Your task to perform on an android device: Open Reddit.com Image 0: 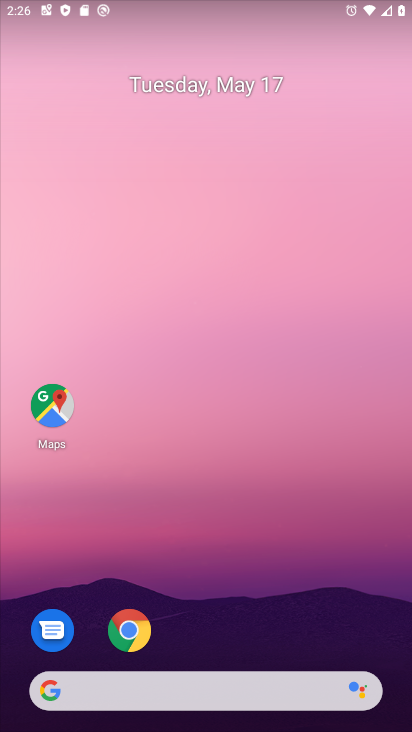
Step 0: drag from (237, 704) to (55, 17)
Your task to perform on an android device: Open Reddit.com Image 1: 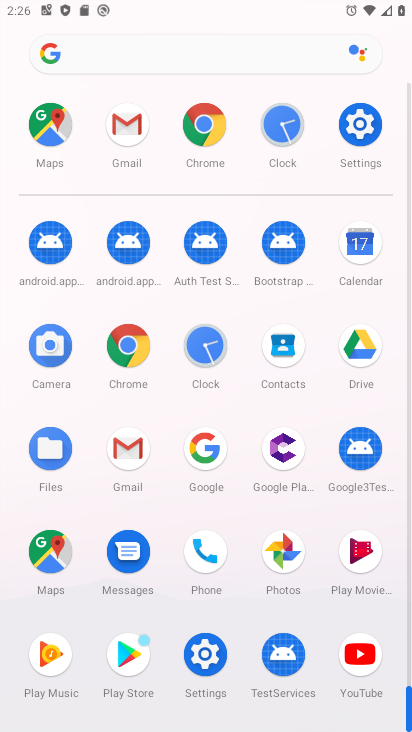
Step 1: drag from (277, 595) to (392, 669)
Your task to perform on an android device: Open Reddit.com Image 2: 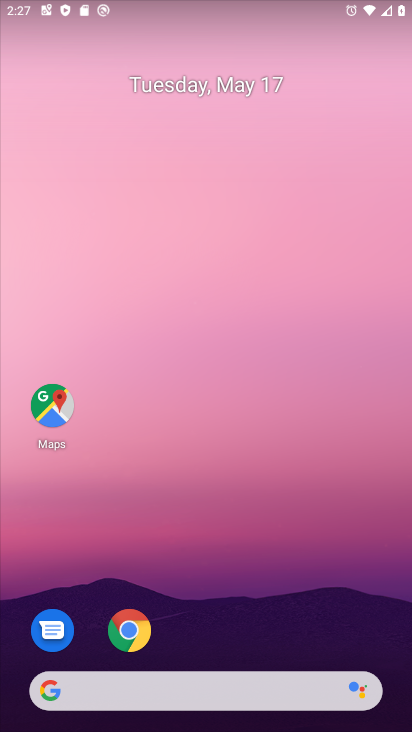
Step 2: drag from (237, 684) to (343, 24)
Your task to perform on an android device: Open Reddit.com Image 3: 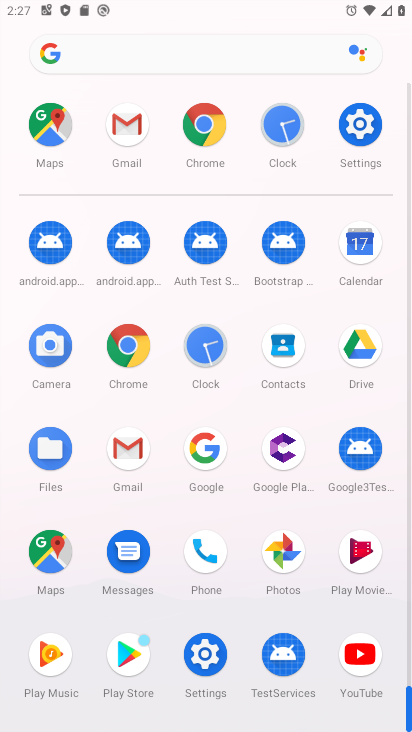
Step 3: click (201, 124)
Your task to perform on an android device: Open Reddit.com Image 4: 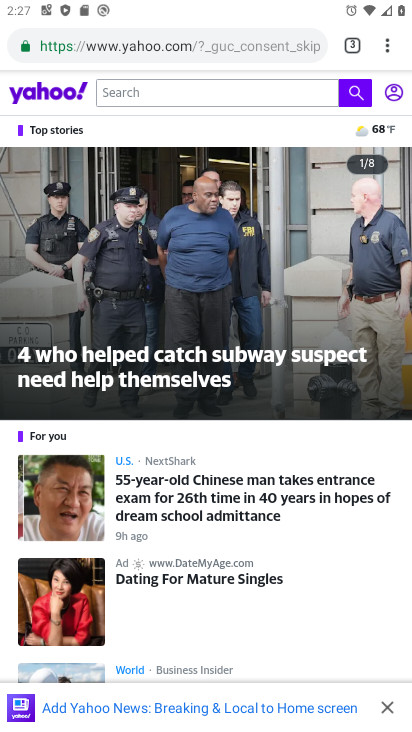
Step 4: drag from (388, 42) to (219, 87)
Your task to perform on an android device: Open Reddit.com Image 5: 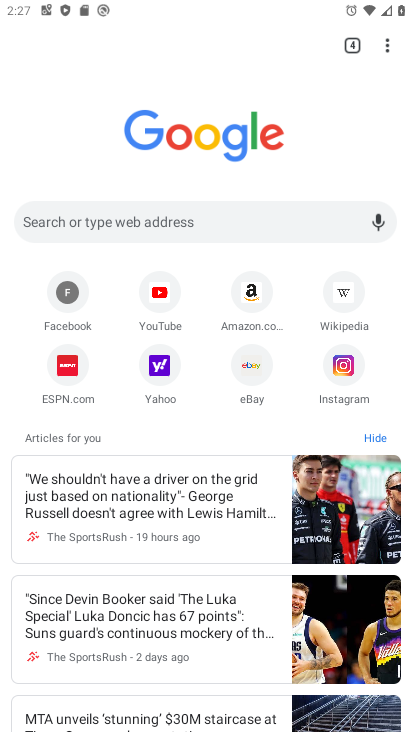
Step 5: click (70, 216)
Your task to perform on an android device: Open Reddit.com Image 6: 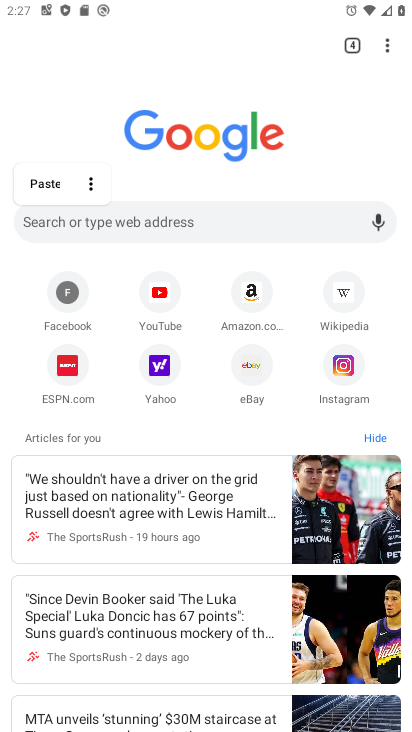
Step 6: type "reddit.com"
Your task to perform on an android device: Open Reddit.com Image 7: 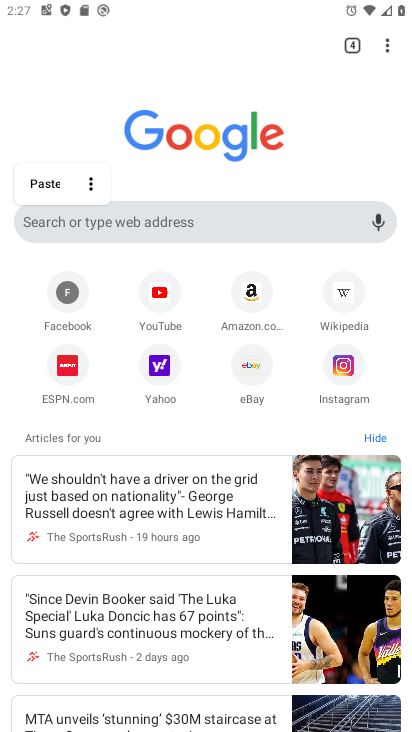
Step 7: click (181, 229)
Your task to perform on an android device: Open Reddit.com Image 8: 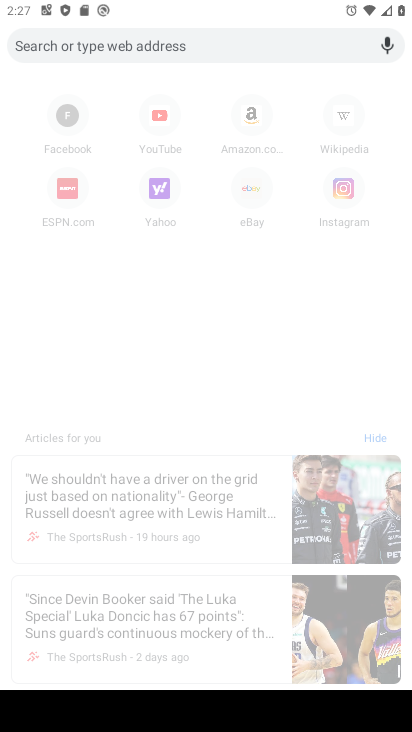
Step 8: click (84, 221)
Your task to perform on an android device: Open Reddit.com Image 9: 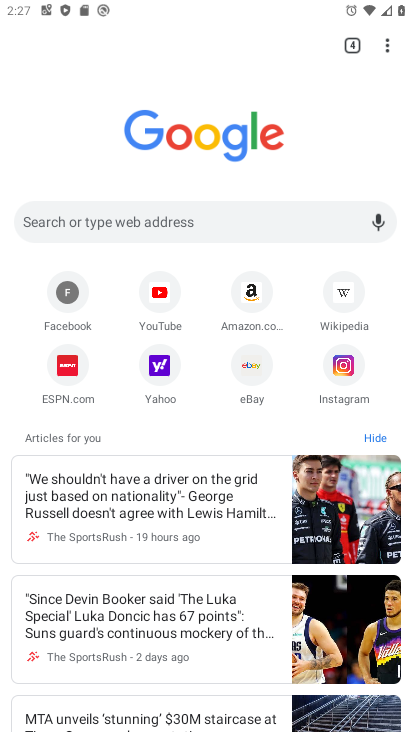
Step 9: click (78, 186)
Your task to perform on an android device: Open Reddit.com Image 10: 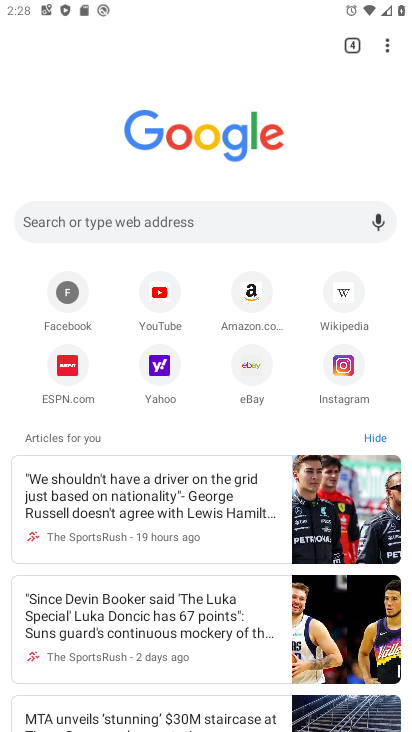
Step 10: click (59, 214)
Your task to perform on an android device: Open Reddit.com Image 11: 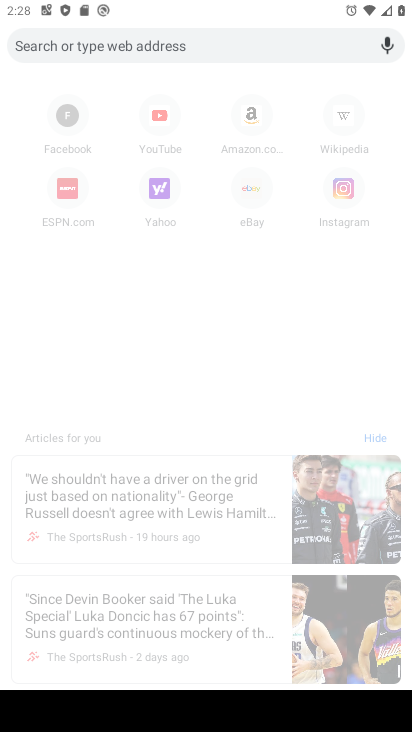
Step 11: click (59, 215)
Your task to perform on an android device: Open Reddit.com Image 12: 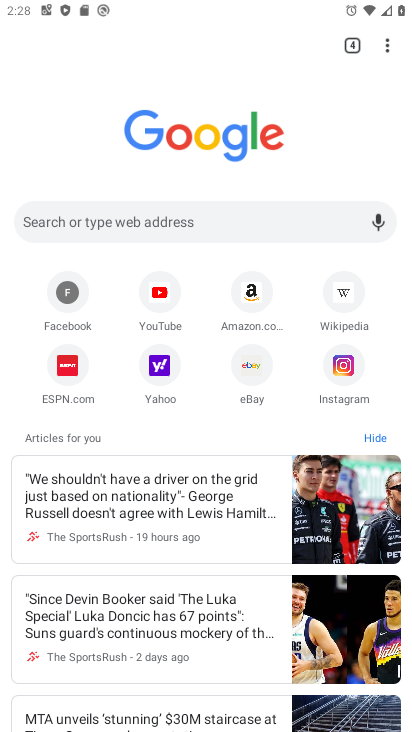
Step 12: click (61, 221)
Your task to perform on an android device: Open Reddit.com Image 13: 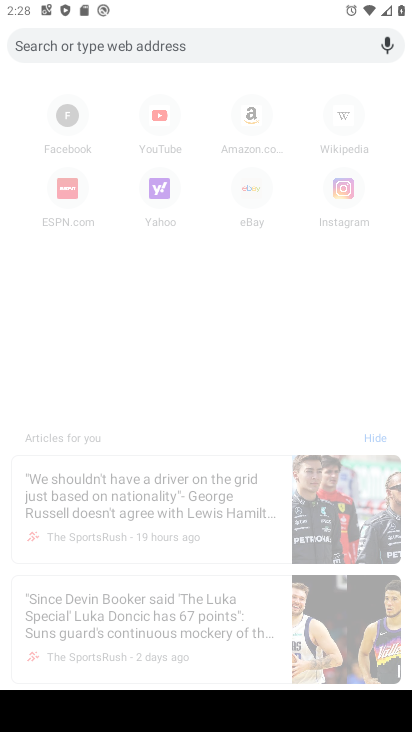
Step 13: type "reddit.com"
Your task to perform on an android device: Open Reddit.com Image 14: 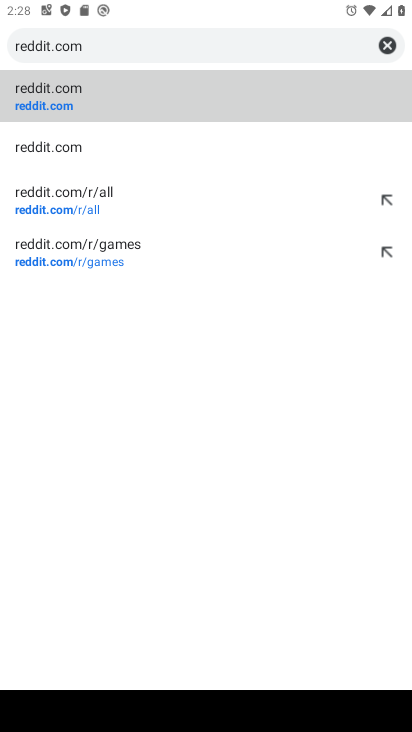
Step 14: click (54, 94)
Your task to perform on an android device: Open Reddit.com Image 15: 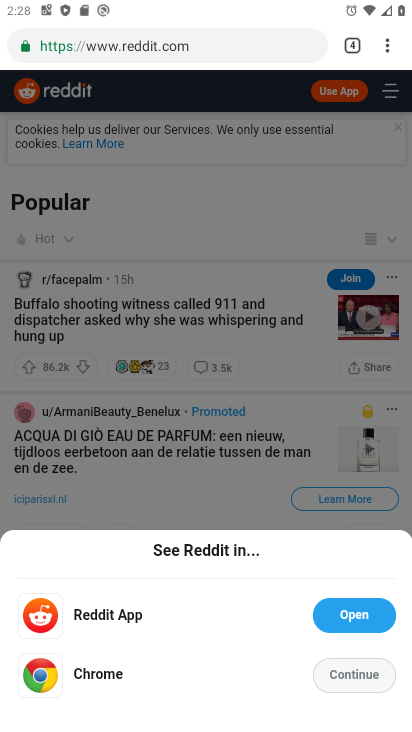
Step 15: task complete